Your task to perform on an android device: Go to ESPN.com Image 0: 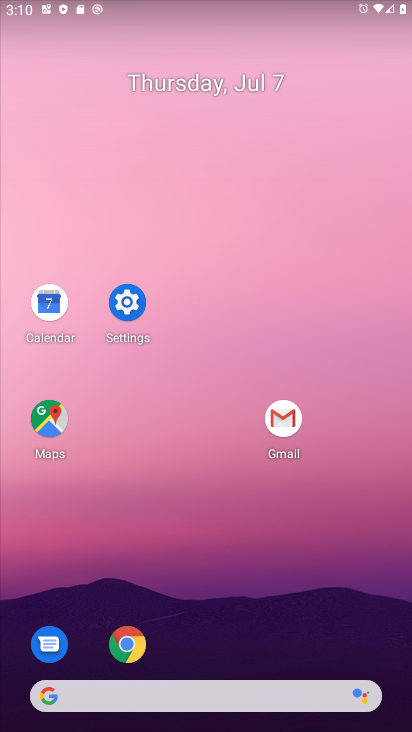
Step 0: click (137, 646)
Your task to perform on an android device: Go to ESPN.com Image 1: 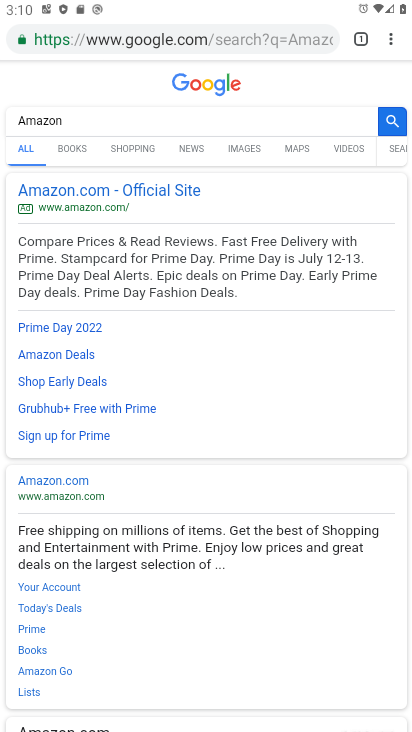
Step 1: click (329, 37)
Your task to perform on an android device: Go to ESPN.com Image 2: 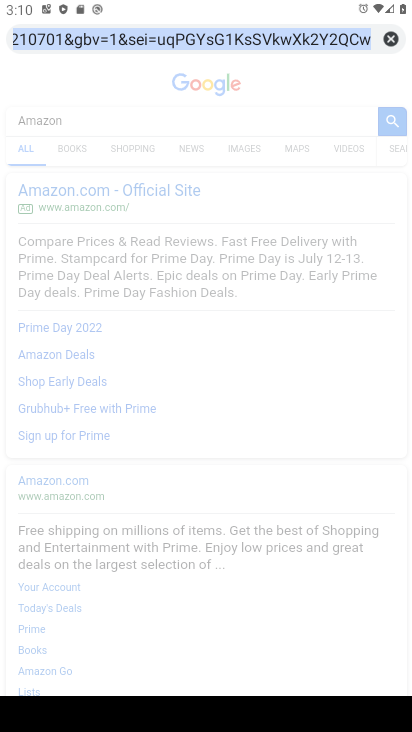
Step 2: click (390, 39)
Your task to perform on an android device: Go to ESPN.com Image 3: 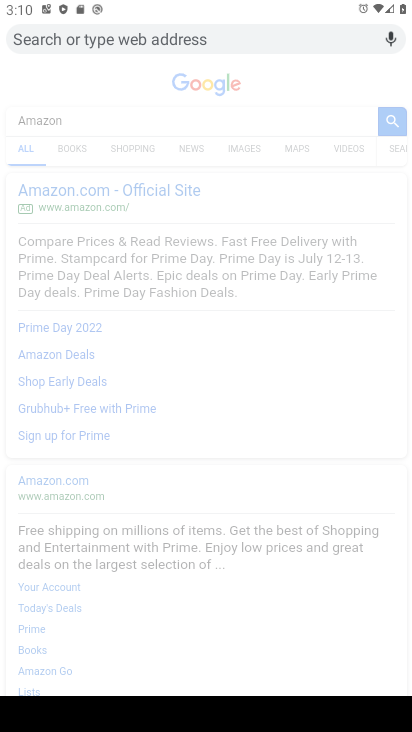
Step 3: type "ESPN.com"
Your task to perform on an android device: Go to ESPN.com Image 4: 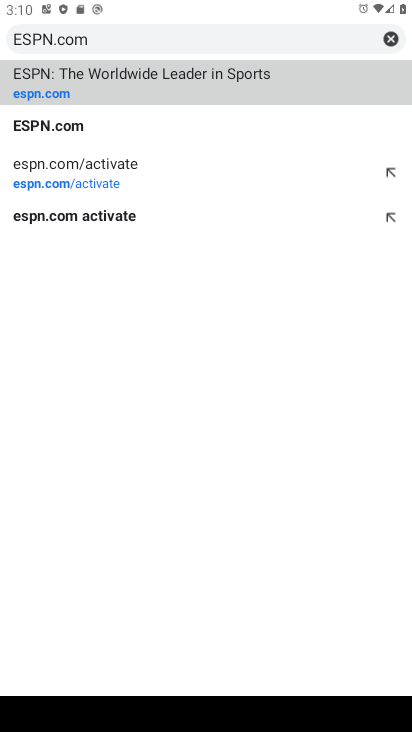
Step 4: click (43, 123)
Your task to perform on an android device: Go to ESPN.com Image 5: 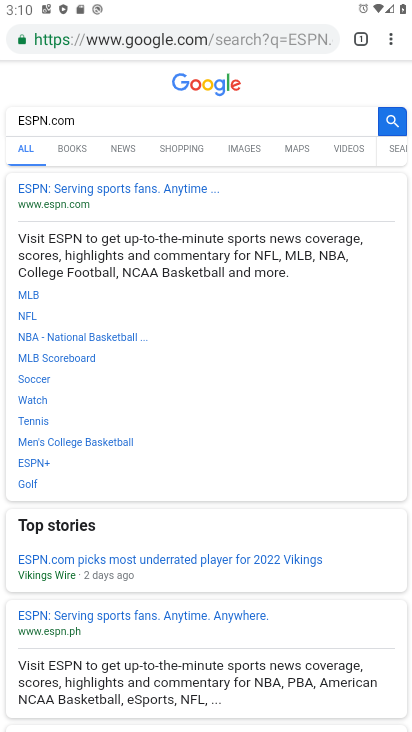
Step 5: task complete